Your task to perform on an android device: Turn on the flashlight Image 0: 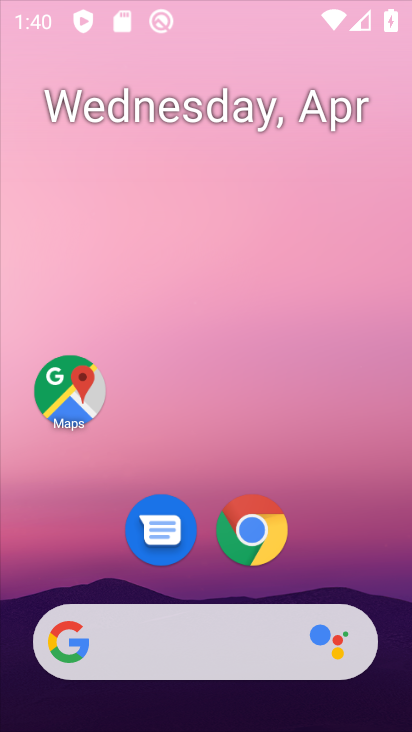
Step 0: click (318, 200)
Your task to perform on an android device: Turn on the flashlight Image 1: 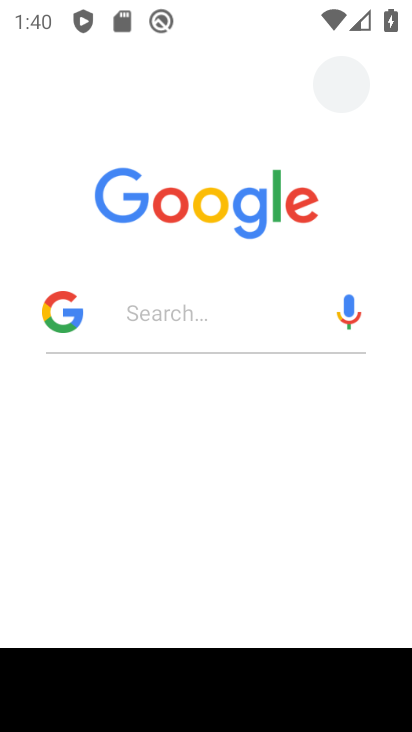
Step 1: press back button
Your task to perform on an android device: Turn on the flashlight Image 2: 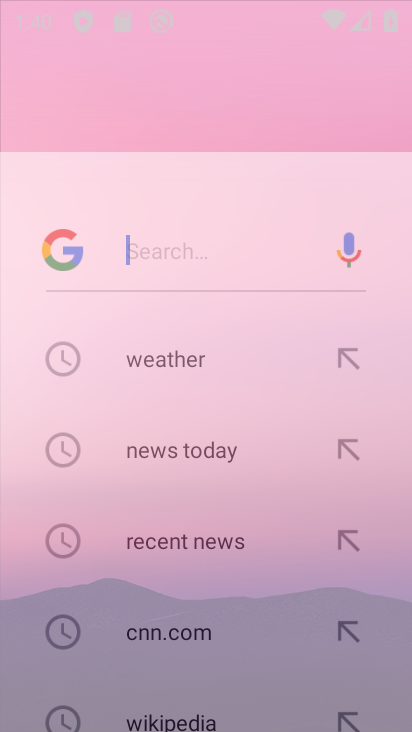
Step 2: press home button
Your task to perform on an android device: Turn on the flashlight Image 3: 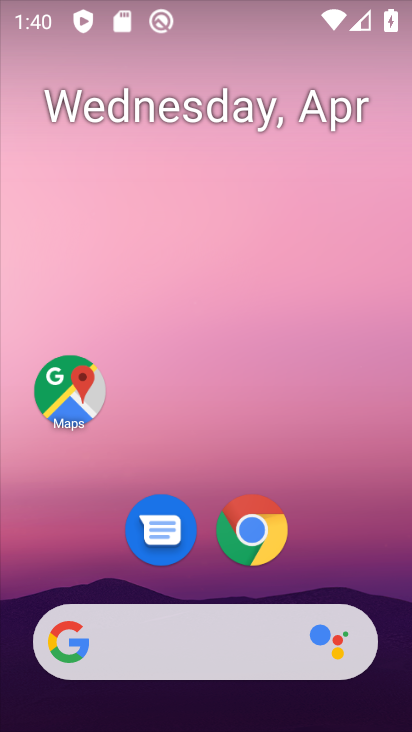
Step 3: drag from (287, 107) to (306, 398)
Your task to perform on an android device: Turn on the flashlight Image 4: 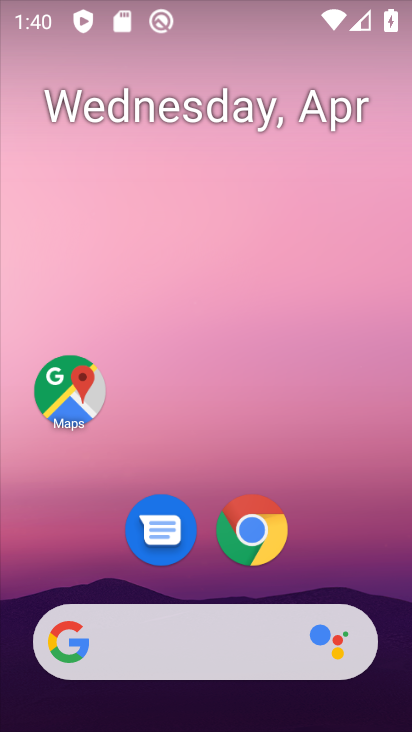
Step 4: drag from (296, 5) to (299, 361)
Your task to perform on an android device: Turn on the flashlight Image 5: 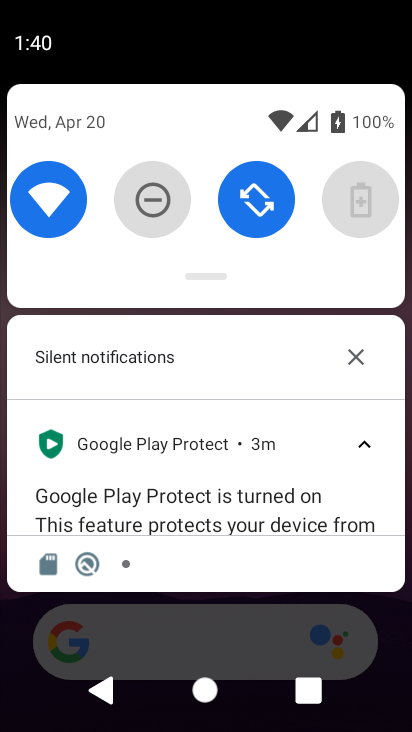
Step 5: drag from (254, 217) to (44, 245)
Your task to perform on an android device: Turn on the flashlight Image 6: 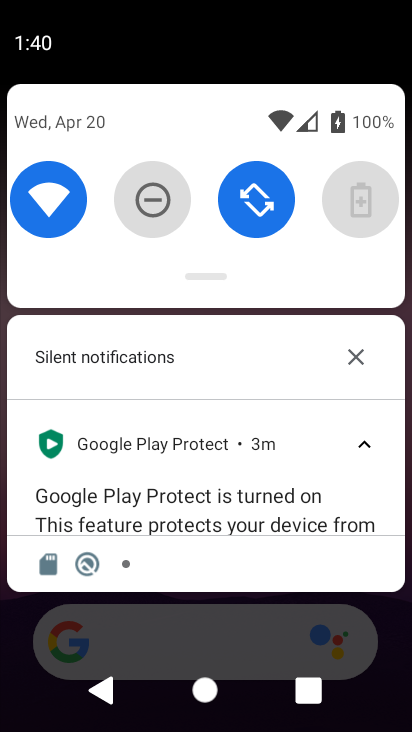
Step 6: drag from (296, 220) to (54, 203)
Your task to perform on an android device: Turn on the flashlight Image 7: 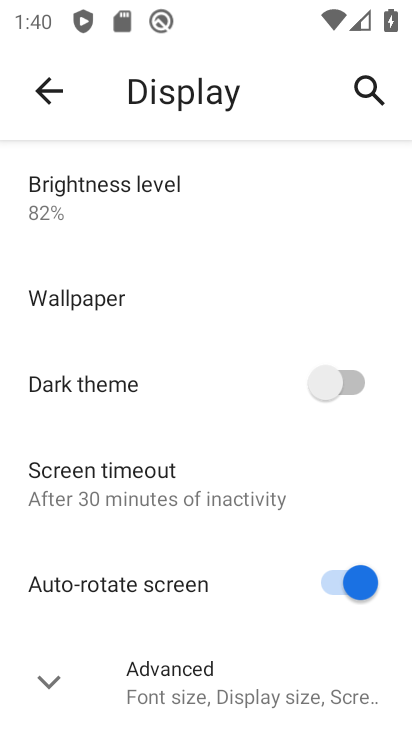
Step 7: click (214, 483)
Your task to perform on an android device: Turn on the flashlight Image 8: 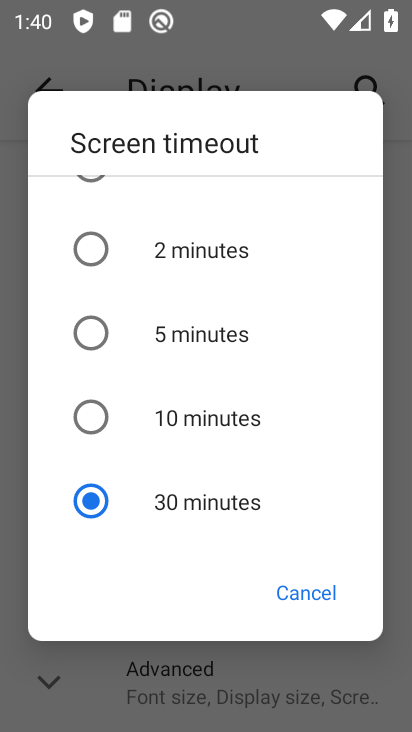
Step 8: task complete